Your task to perform on an android device: turn on airplane mode Image 0: 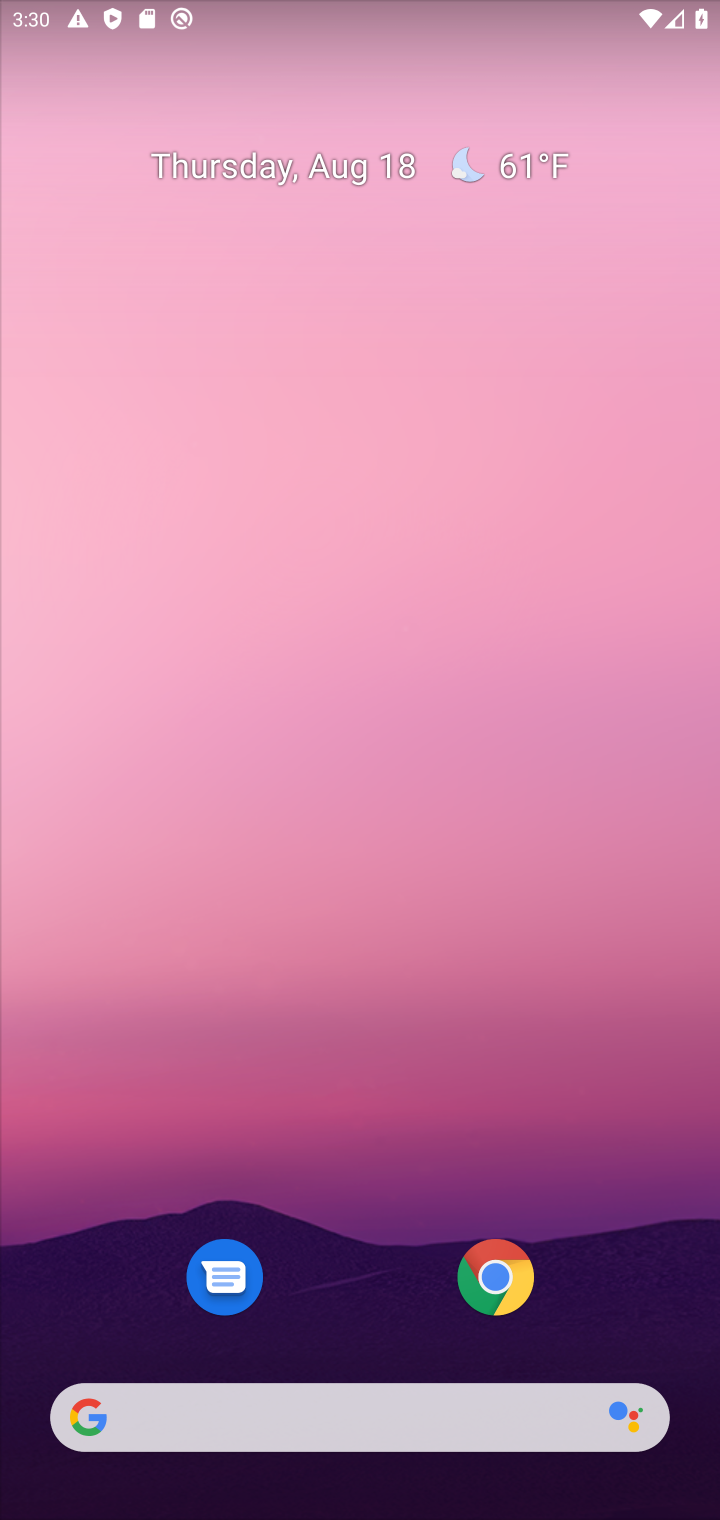
Step 0: drag from (399, 1156) to (512, 136)
Your task to perform on an android device: turn on airplane mode Image 1: 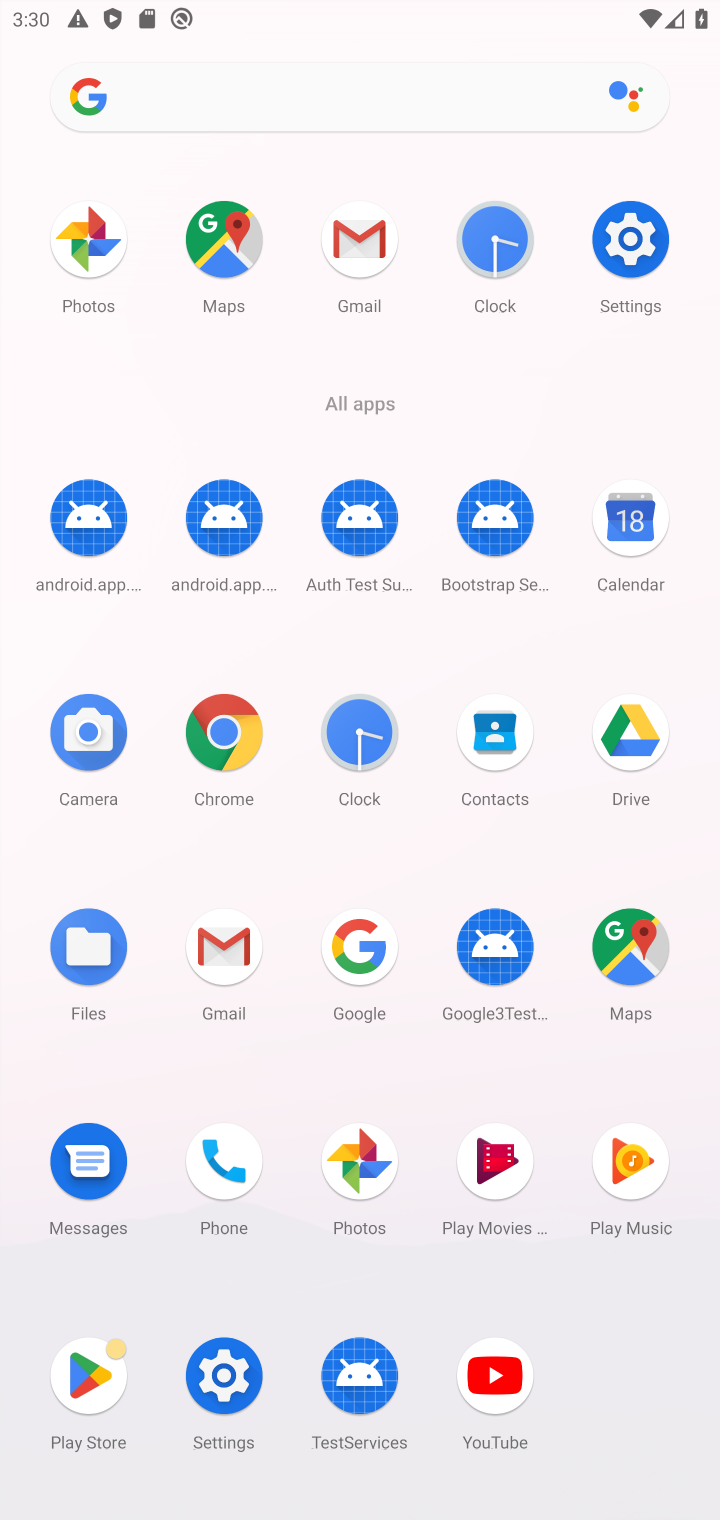
Step 1: task complete